Your task to perform on an android device: Go to wifi settings Image 0: 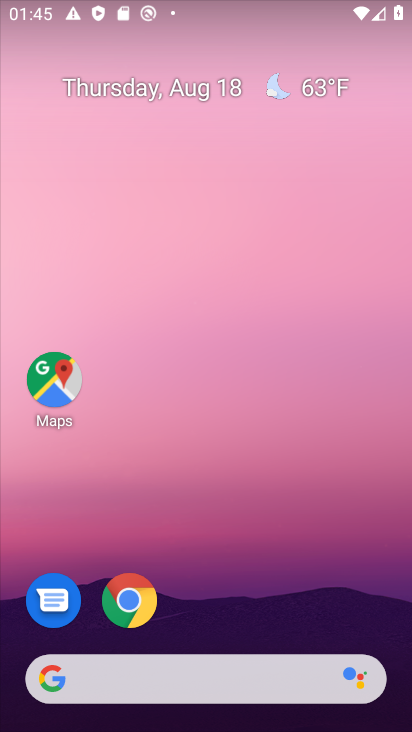
Step 0: click (53, 375)
Your task to perform on an android device: Go to wifi settings Image 1: 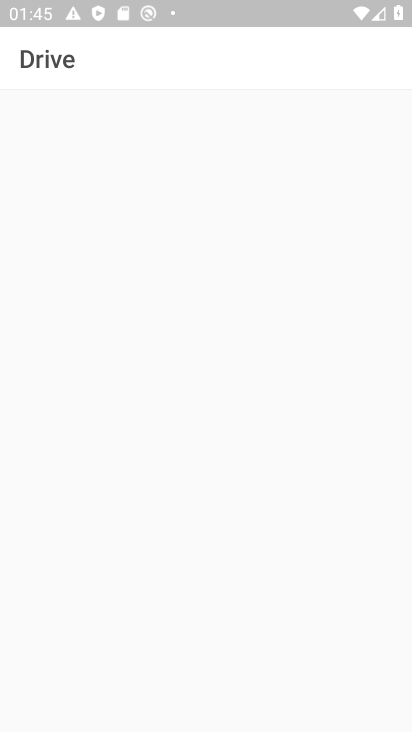
Step 1: press home button
Your task to perform on an android device: Go to wifi settings Image 2: 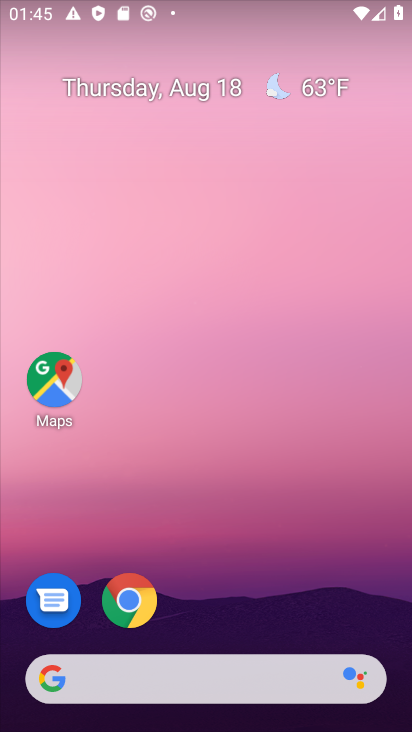
Step 2: drag from (246, 611) to (204, 150)
Your task to perform on an android device: Go to wifi settings Image 3: 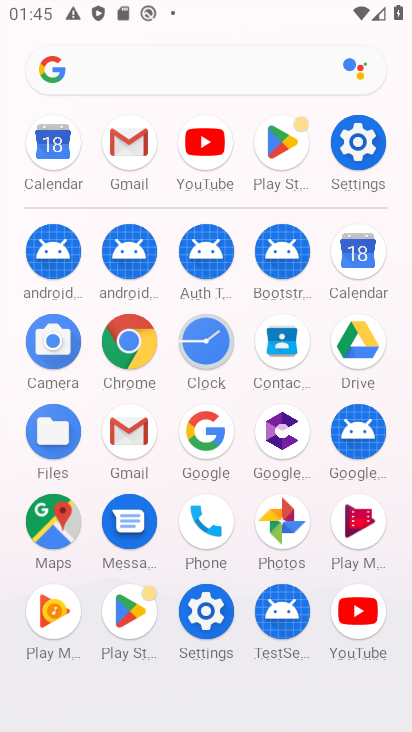
Step 3: click (363, 139)
Your task to perform on an android device: Go to wifi settings Image 4: 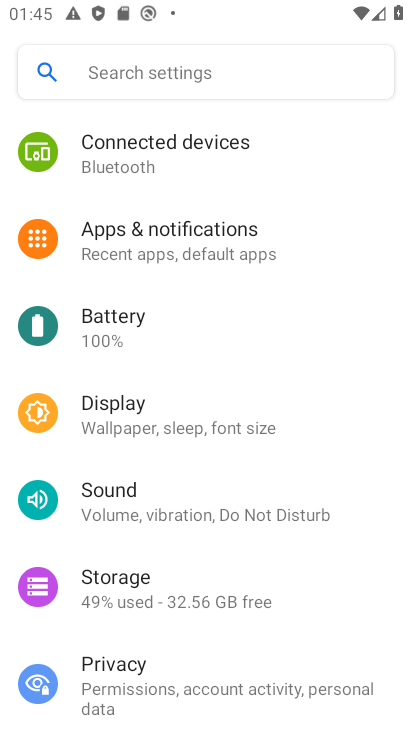
Step 4: drag from (215, 189) to (190, 534)
Your task to perform on an android device: Go to wifi settings Image 5: 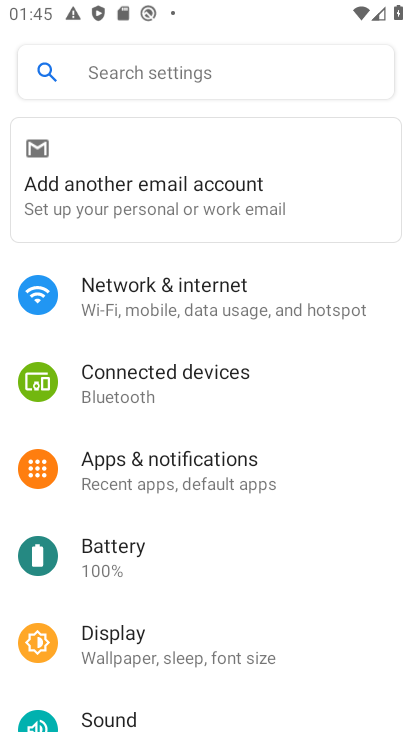
Step 5: click (183, 282)
Your task to perform on an android device: Go to wifi settings Image 6: 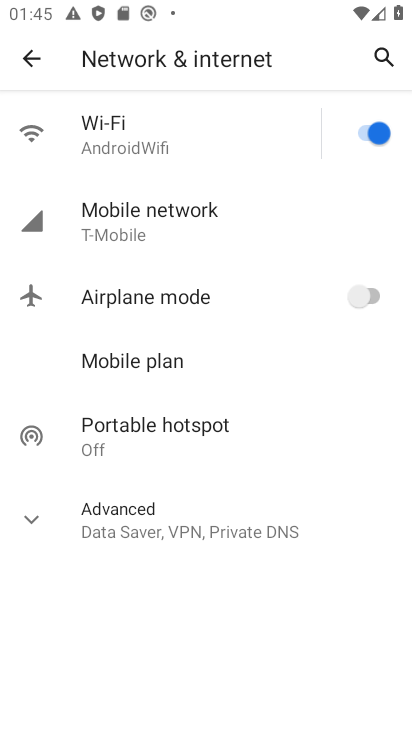
Step 6: click (78, 113)
Your task to perform on an android device: Go to wifi settings Image 7: 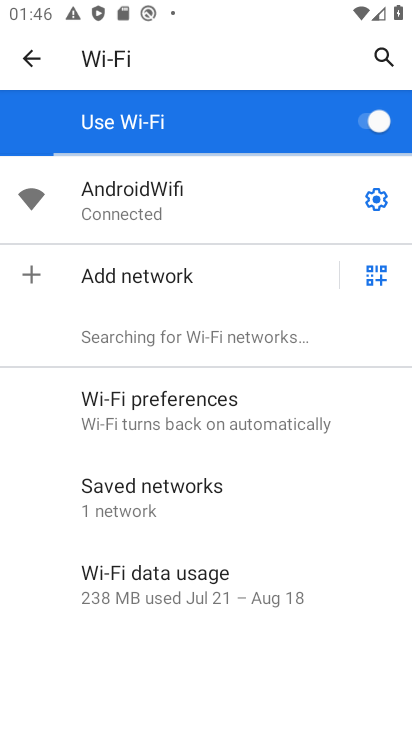
Step 7: task complete